Your task to perform on an android device: See recent photos Image 0: 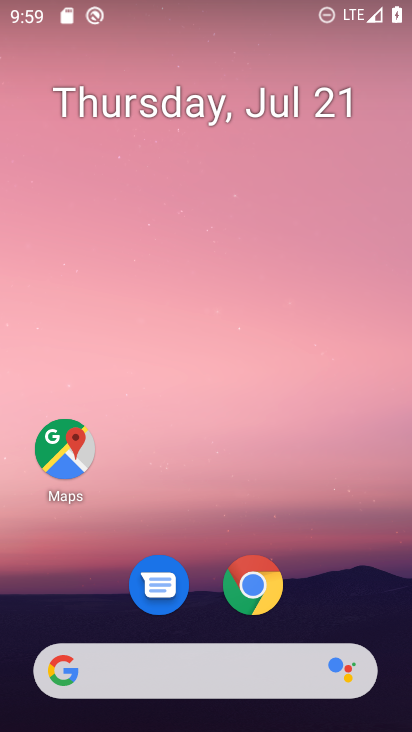
Step 0: drag from (312, 576) to (306, 64)
Your task to perform on an android device: See recent photos Image 1: 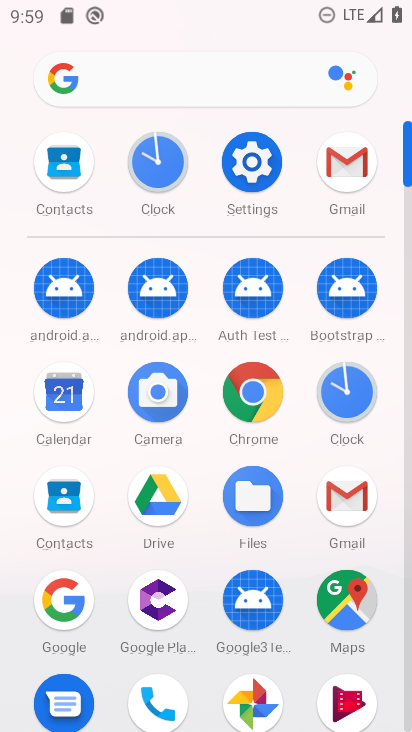
Step 1: click (241, 693)
Your task to perform on an android device: See recent photos Image 2: 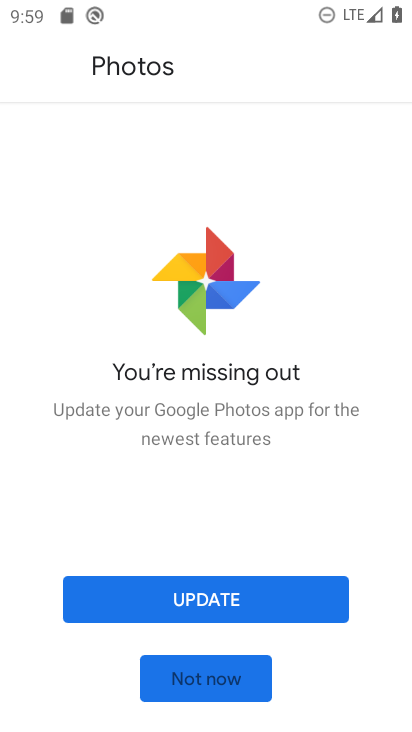
Step 2: click (241, 694)
Your task to perform on an android device: See recent photos Image 3: 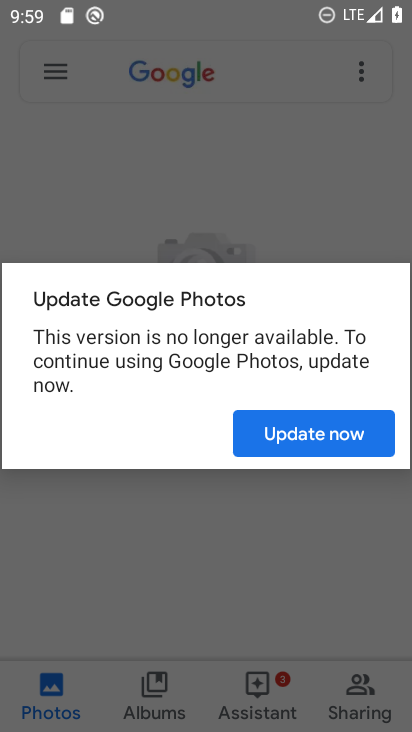
Step 3: click (335, 441)
Your task to perform on an android device: See recent photos Image 4: 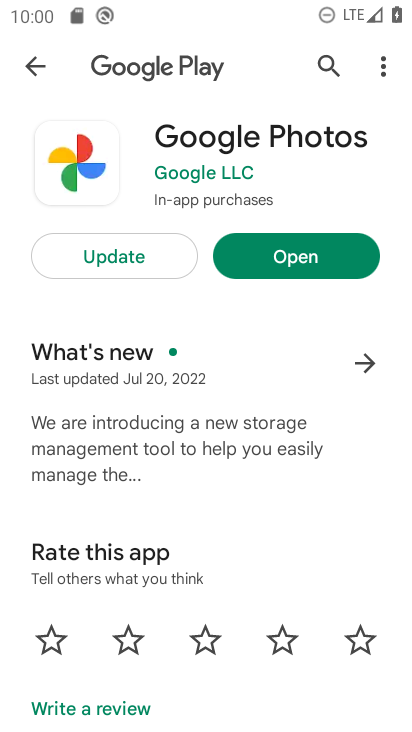
Step 4: click (311, 258)
Your task to perform on an android device: See recent photos Image 5: 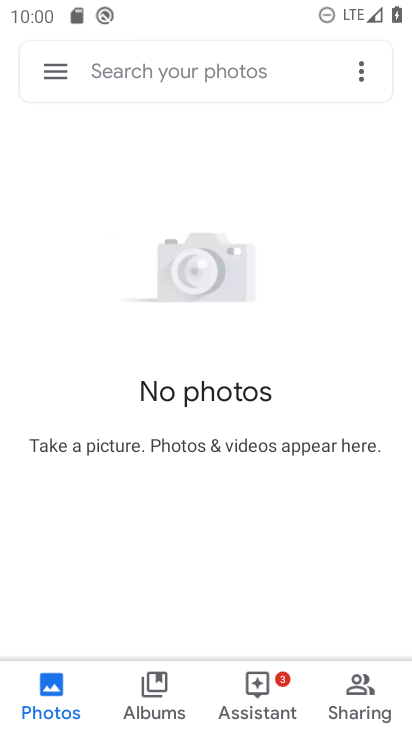
Step 5: click (57, 679)
Your task to perform on an android device: See recent photos Image 6: 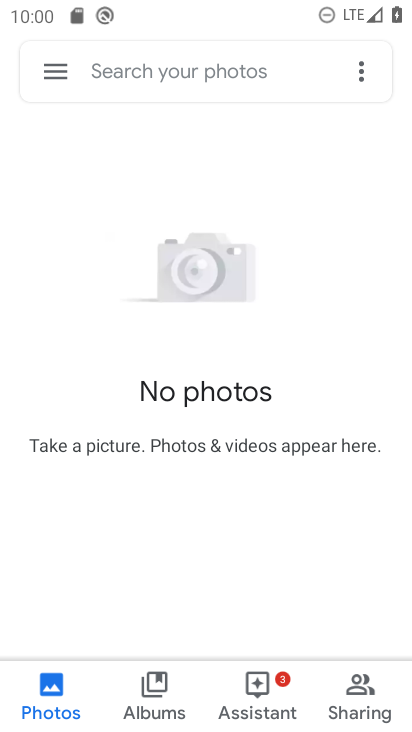
Step 6: task complete